Your task to perform on an android device: clear history in the chrome app Image 0: 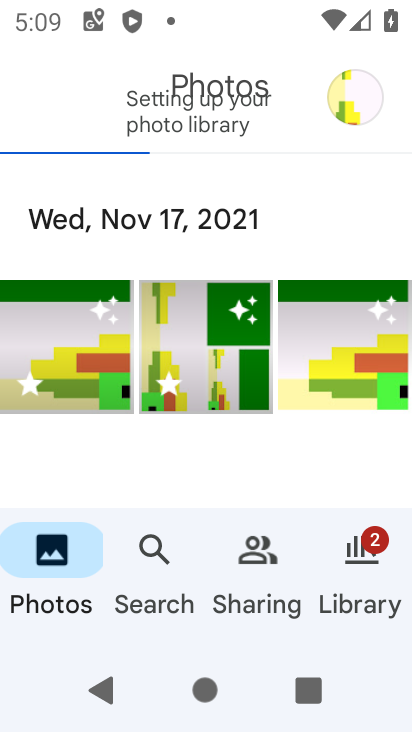
Step 0: press home button
Your task to perform on an android device: clear history in the chrome app Image 1: 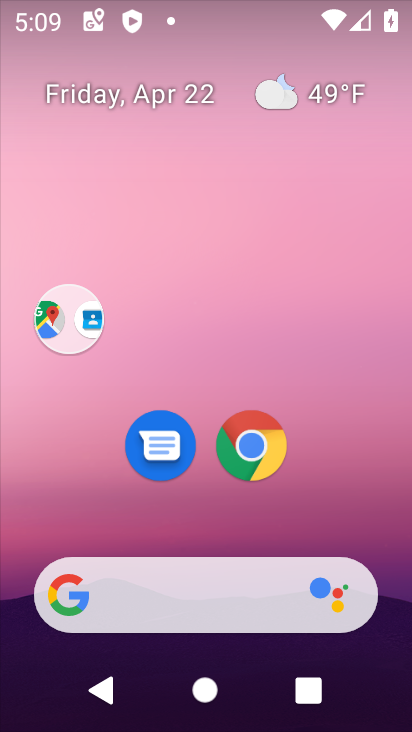
Step 1: click (251, 450)
Your task to perform on an android device: clear history in the chrome app Image 2: 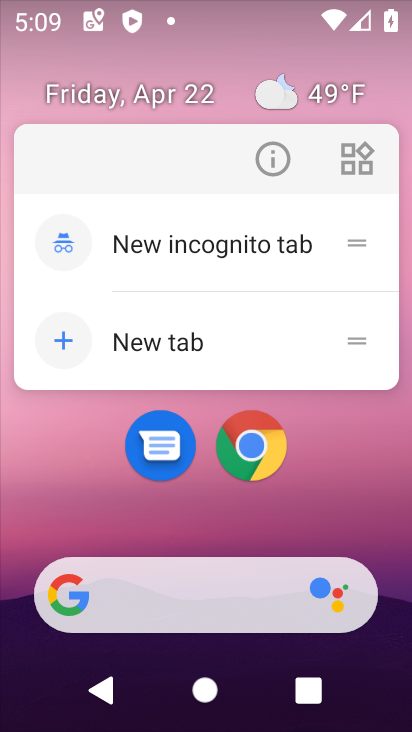
Step 2: click (252, 449)
Your task to perform on an android device: clear history in the chrome app Image 3: 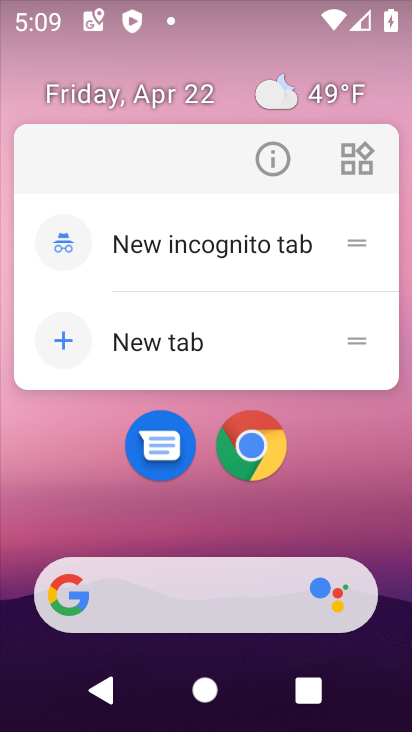
Step 3: drag from (347, 497) to (306, 0)
Your task to perform on an android device: clear history in the chrome app Image 4: 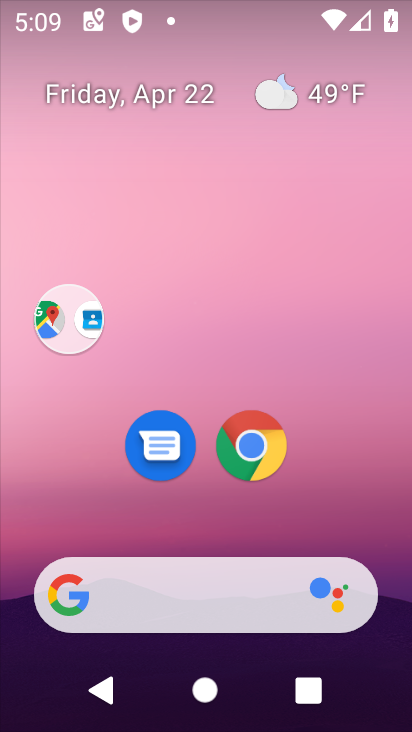
Step 4: drag from (357, 404) to (366, 30)
Your task to perform on an android device: clear history in the chrome app Image 5: 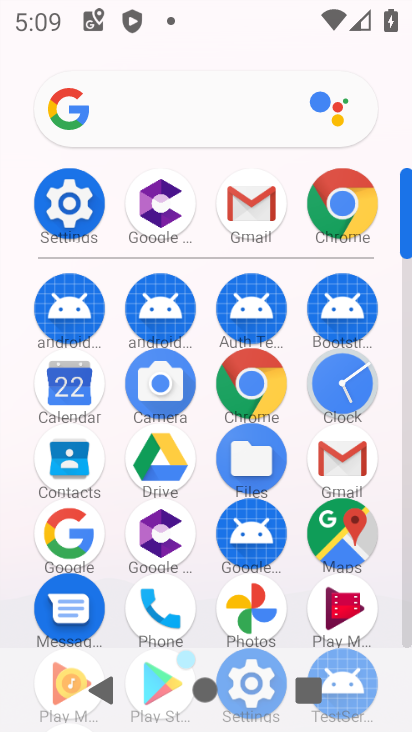
Step 5: click (256, 383)
Your task to perform on an android device: clear history in the chrome app Image 6: 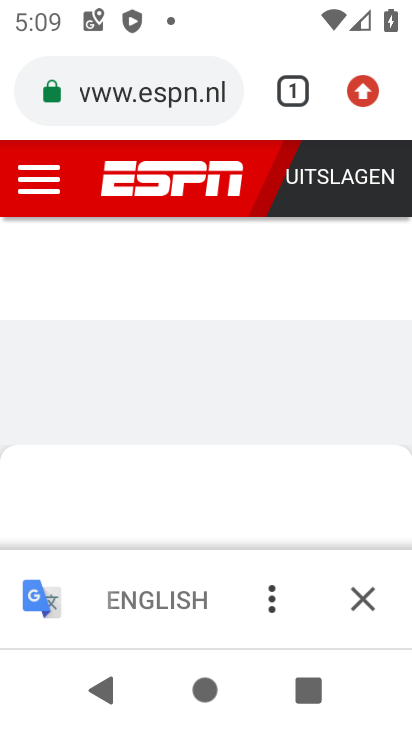
Step 6: drag from (368, 90) to (226, 230)
Your task to perform on an android device: clear history in the chrome app Image 7: 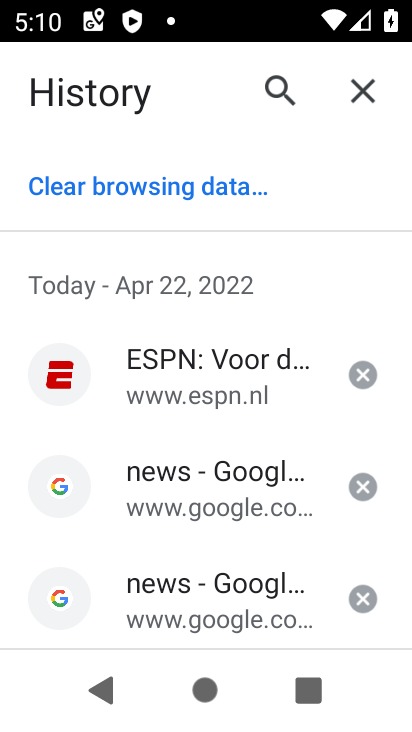
Step 7: click (184, 189)
Your task to perform on an android device: clear history in the chrome app Image 8: 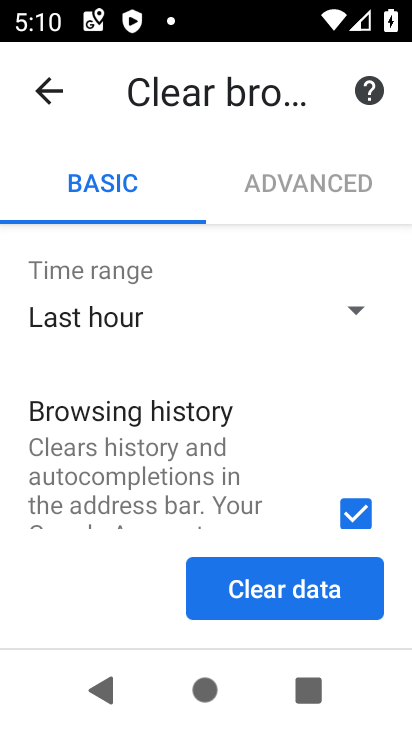
Step 8: click (307, 592)
Your task to perform on an android device: clear history in the chrome app Image 9: 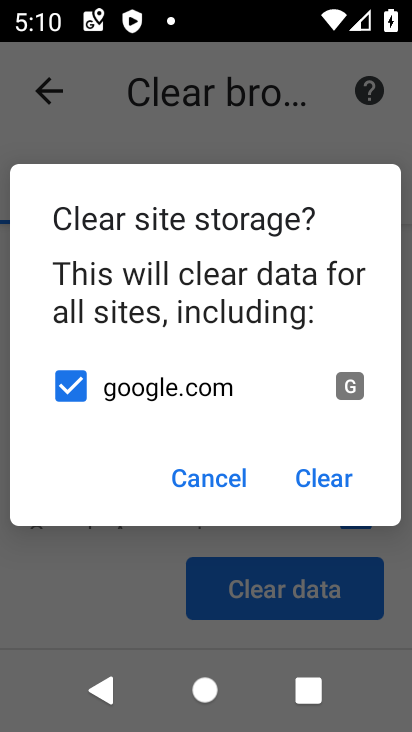
Step 9: click (327, 491)
Your task to perform on an android device: clear history in the chrome app Image 10: 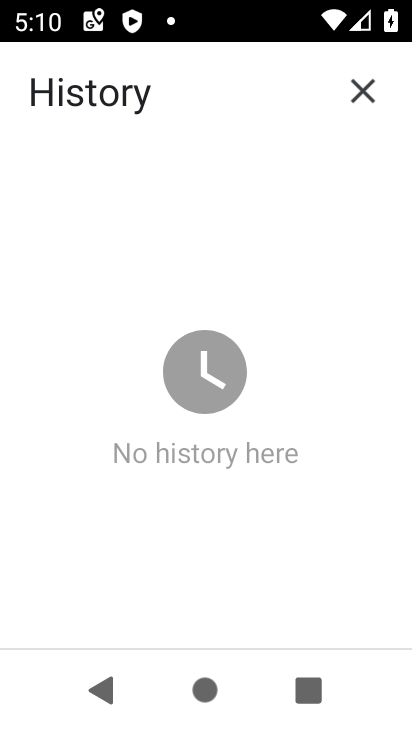
Step 10: task complete